Your task to perform on an android device: open app "AliExpress" Image 0: 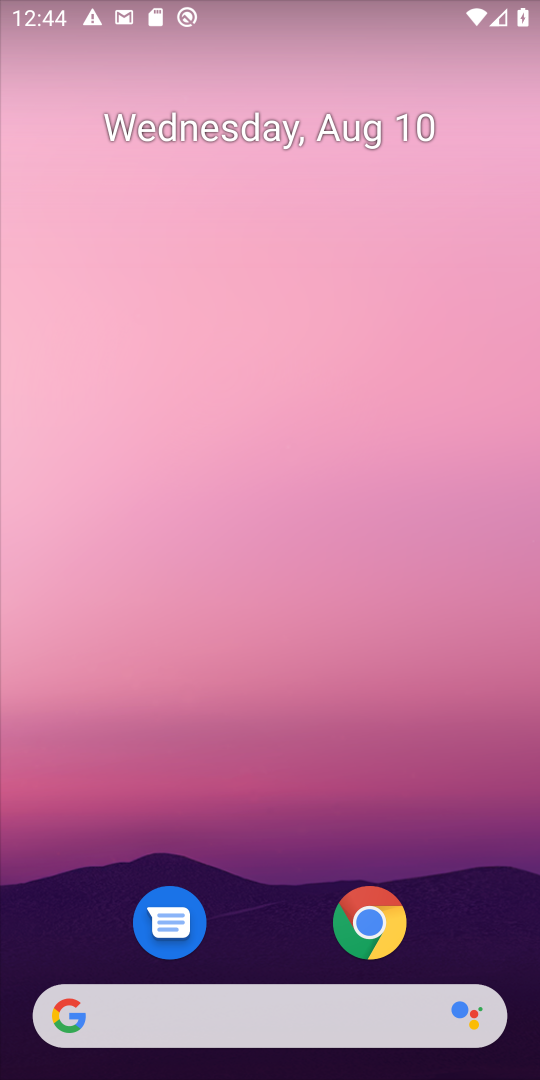
Step 0: drag from (237, 893) to (270, 180)
Your task to perform on an android device: open app "AliExpress" Image 1: 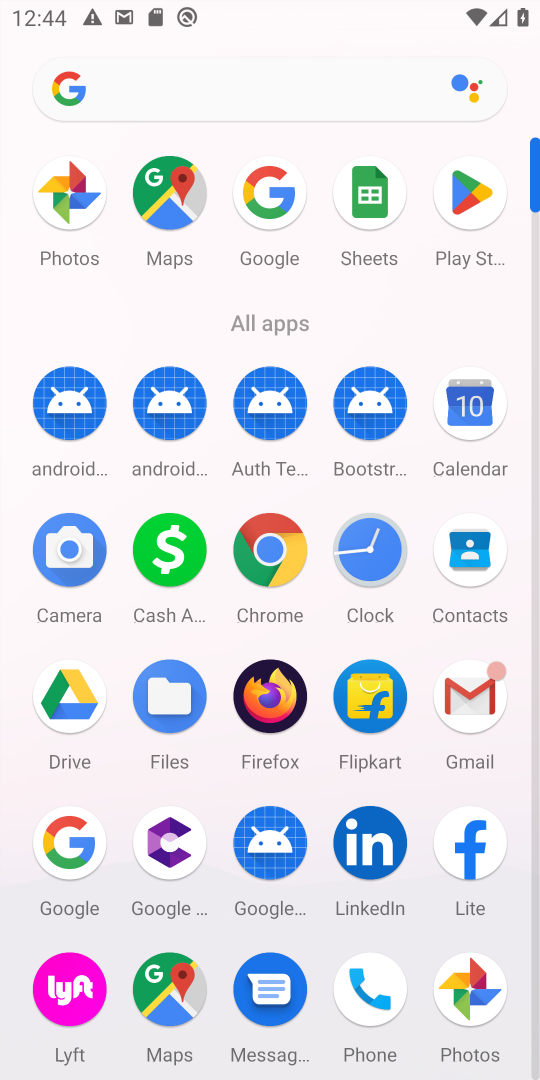
Step 1: click (455, 199)
Your task to perform on an android device: open app "AliExpress" Image 2: 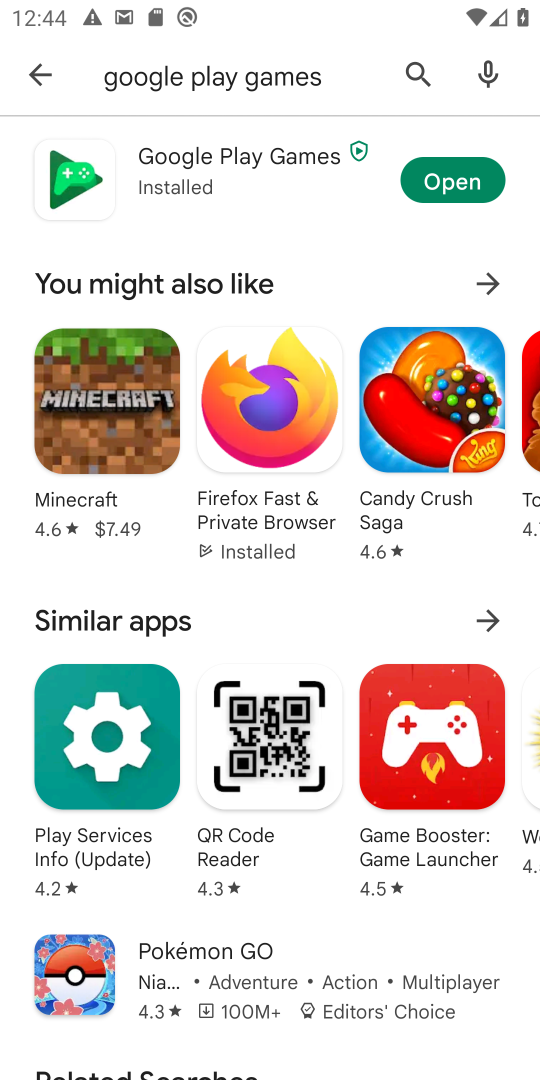
Step 2: click (38, 73)
Your task to perform on an android device: open app "AliExpress" Image 3: 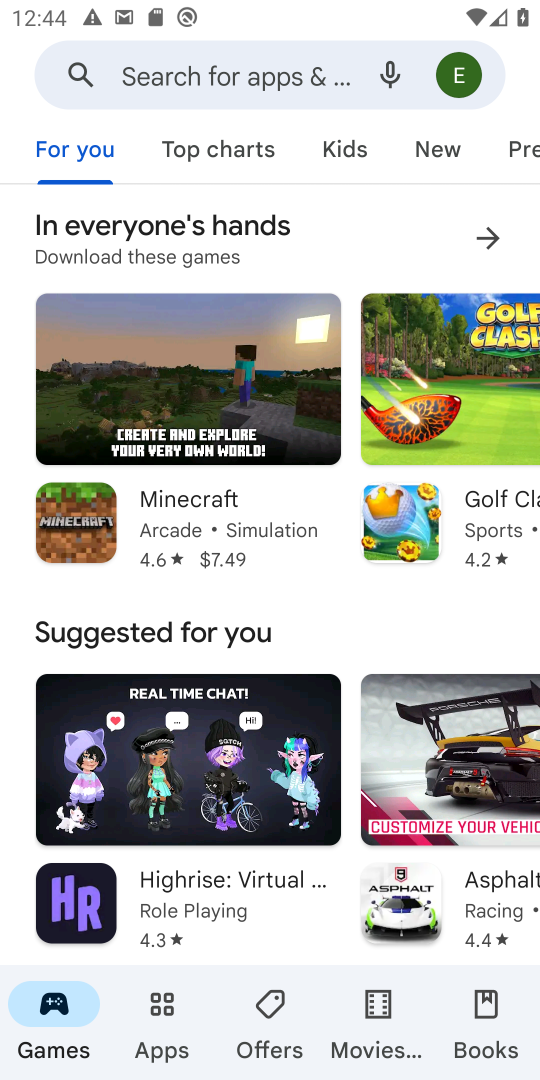
Step 3: click (222, 72)
Your task to perform on an android device: open app "AliExpress" Image 4: 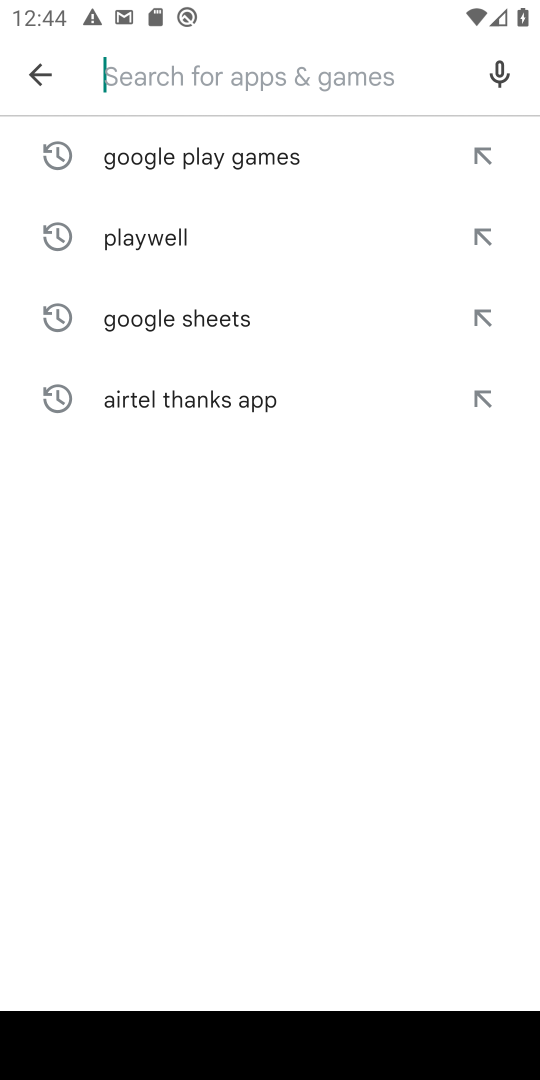
Step 4: type "AliExpress"
Your task to perform on an android device: open app "AliExpress" Image 5: 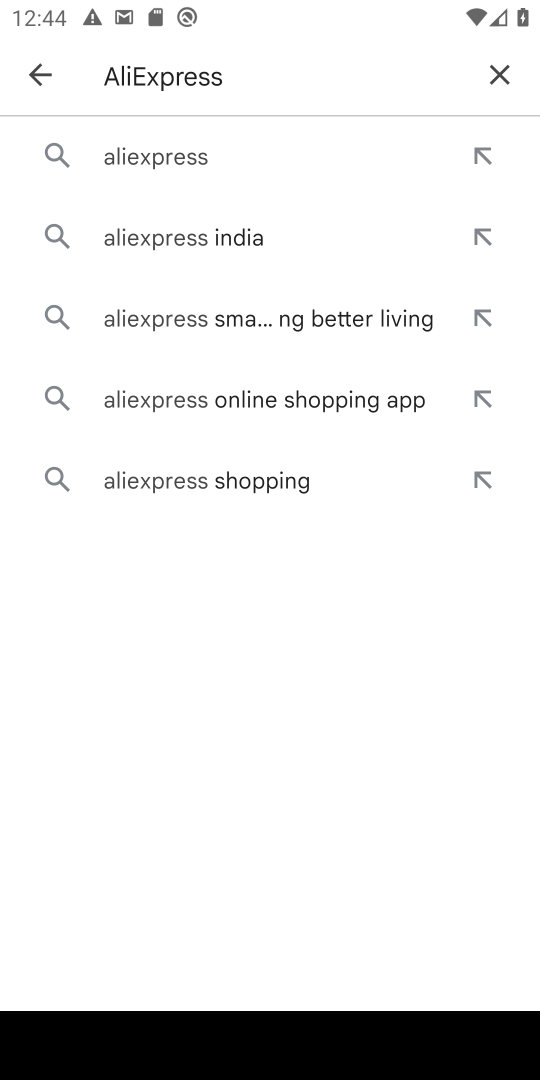
Step 5: click (144, 162)
Your task to perform on an android device: open app "AliExpress" Image 6: 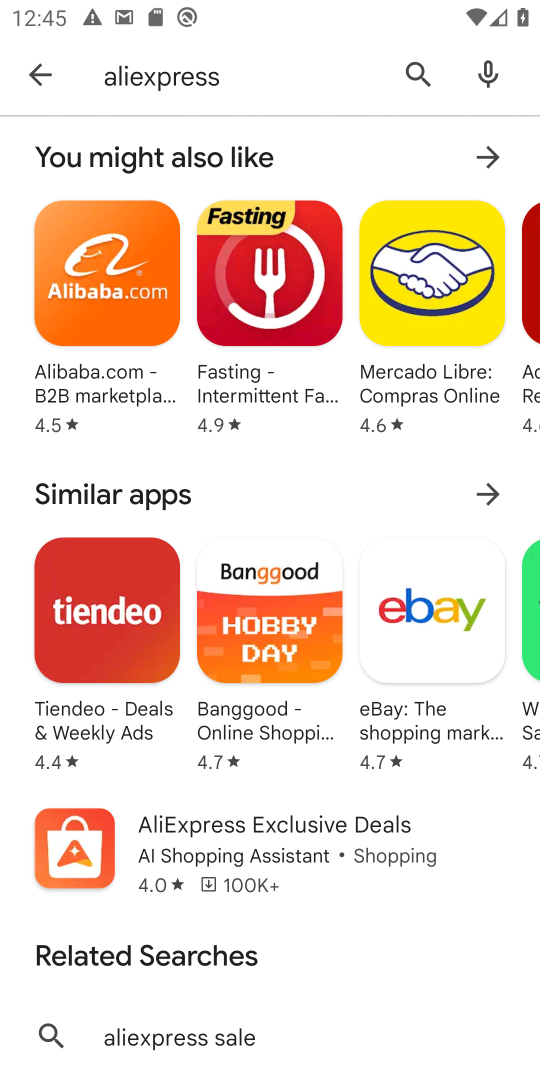
Step 6: click (192, 852)
Your task to perform on an android device: open app "AliExpress" Image 7: 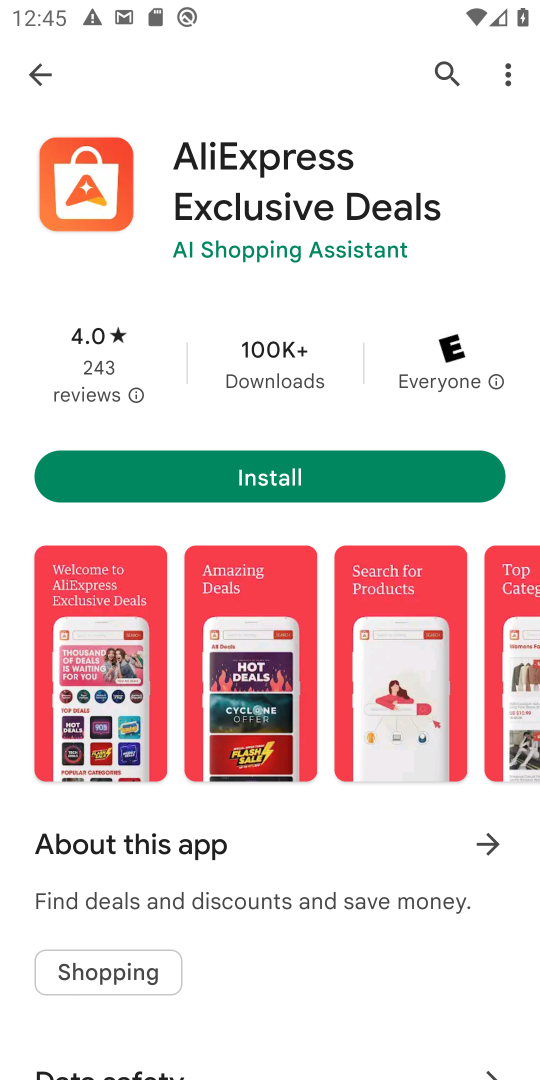
Step 7: click (261, 480)
Your task to perform on an android device: open app "AliExpress" Image 8: 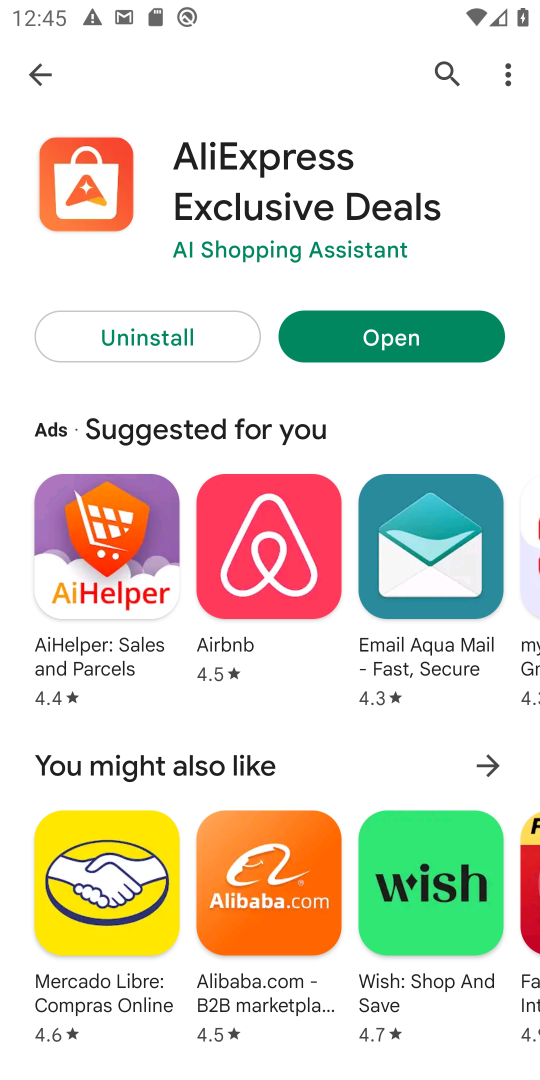
Step 8: click (361, 339)
Your task to perform on an android device: open app "AliExpress" Image 9: 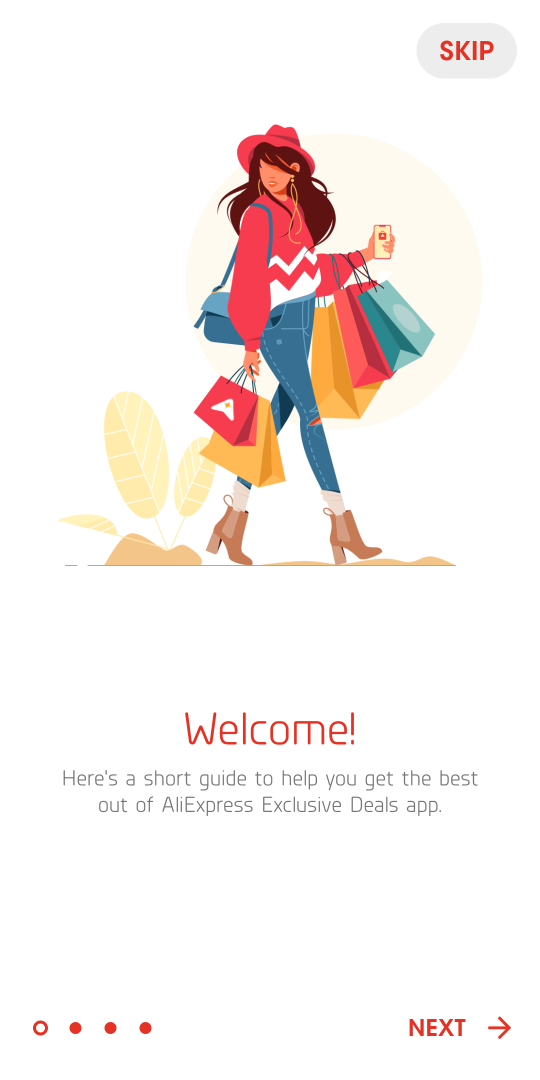
Step 9: click (449, 1046)
Your task to perform on an android device: open app "AliExpress" Image 10: 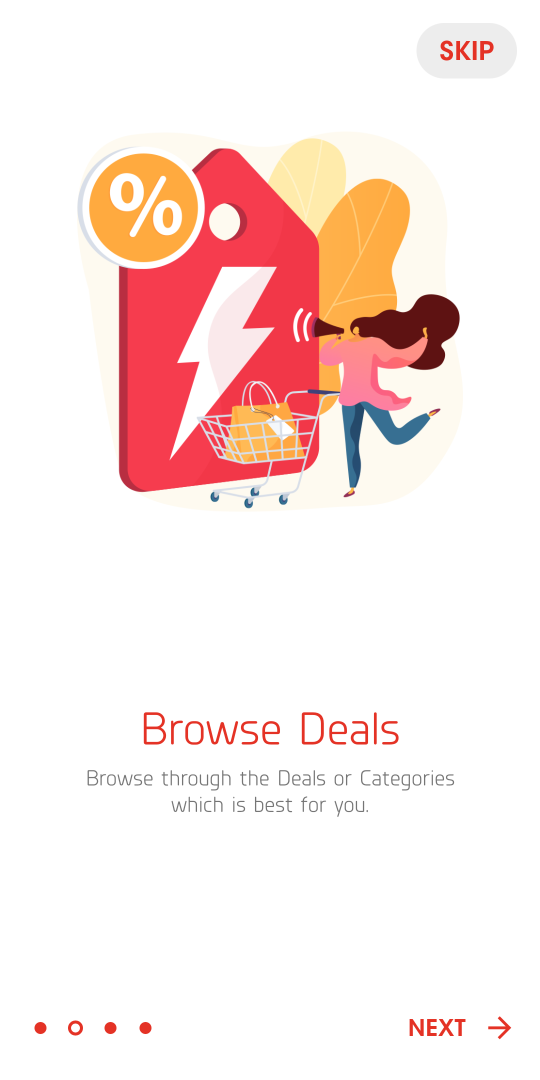
Step 10: click (462, 1012)
Your task to perform on an android device: open app "AliExpress" Image 11: 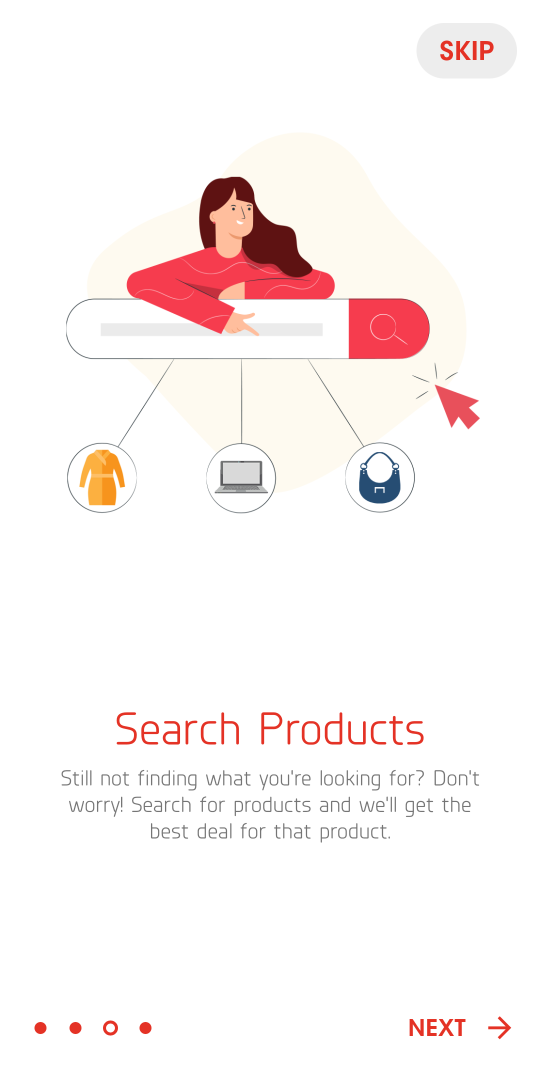
Step 11: click (465, 1016)
Your task to perform on an android device: open app "AliExpress" Image 12: 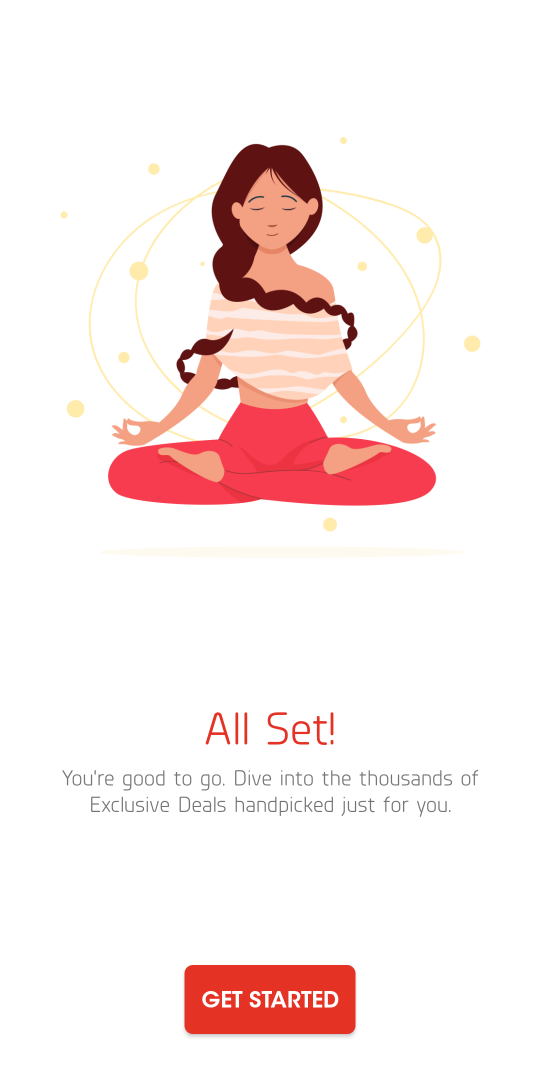
Step 12: click (262, 1005)
Your task to perform on an android device: open app "AliExpress" Image 13: 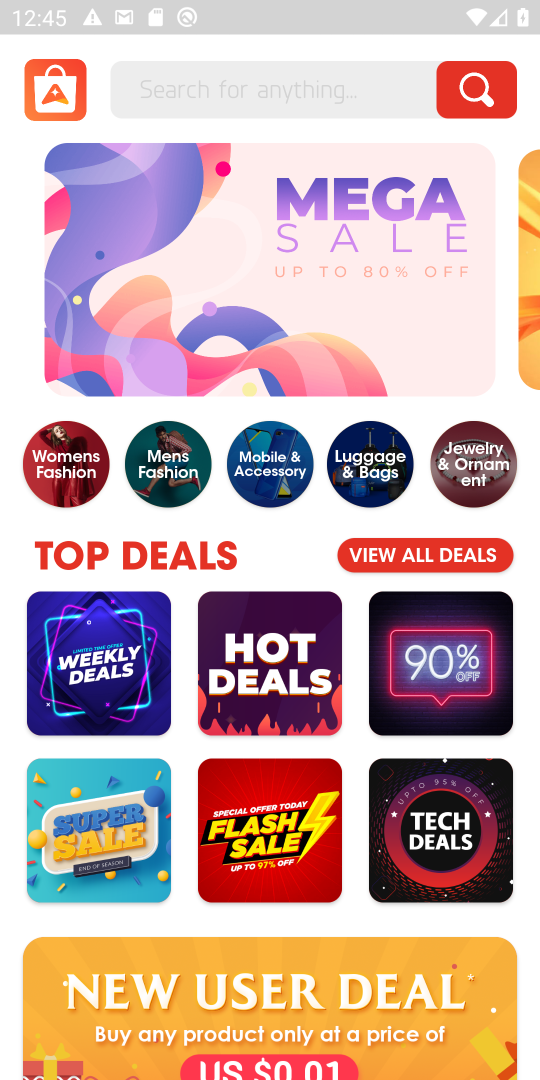
Step 13: task complete